Your task to perform on an android device: turn off data saver in the chrome app Image 0: 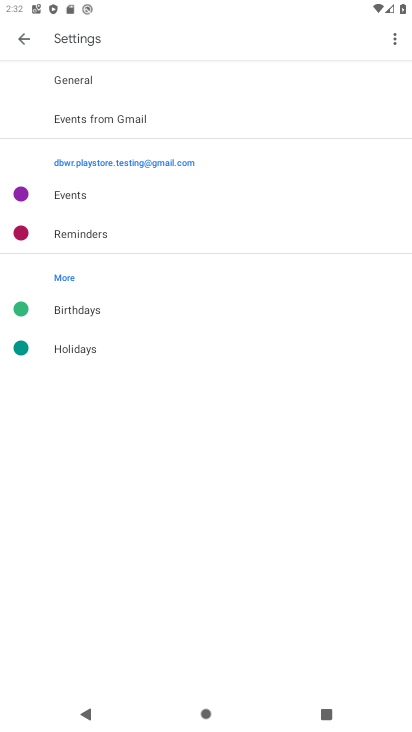
Step 0: press home button
Your task to perform on an android device: turn off data saver in the chrome app Image 1: 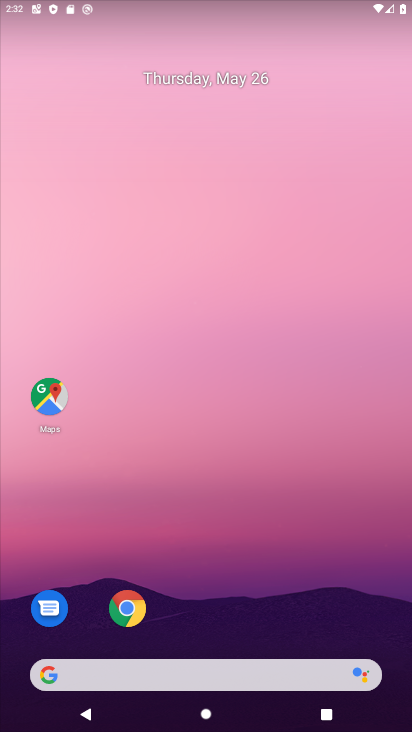
Step 1: drag from (272, 490) to (337, 27)
Your task to perform on an android device: turn off data saver in the chrome app Image 2: 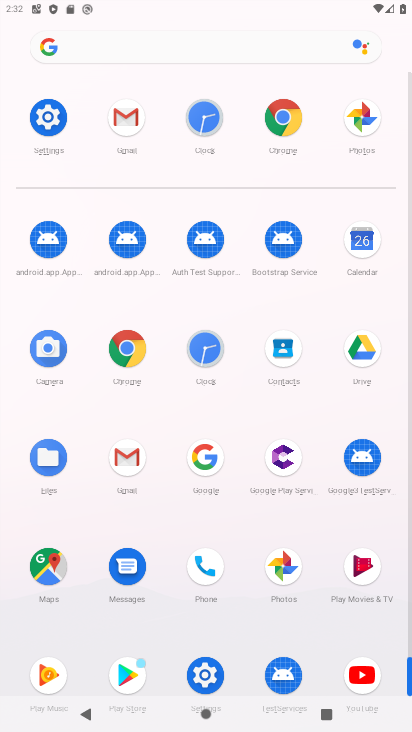
Step 2: click (291, 131)
Your task to perform on an android device: turn off data saver in the chrome app Image 3: 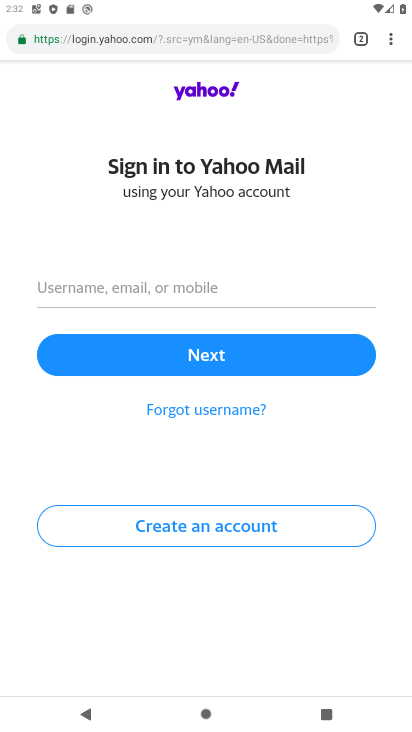
Step 3: drag from (388, 44) to (246, 435)
Your task to perform on an android device: turn off data saver in the chrome app Image 4: 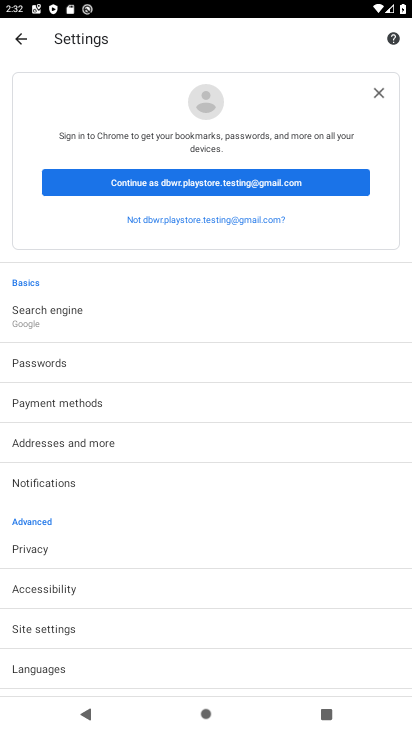
Step 4: drag from (126, 666) to (153, 277)
Your task to perform on an android device: turn off data saver in the chrome app Image 5: 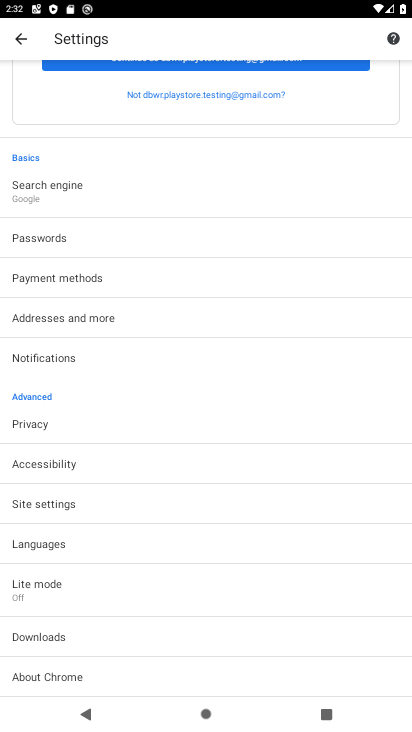
Step 5: click (54, 588)
Your task to perform on an android device: turn off data saver in the chrome app Image 6: 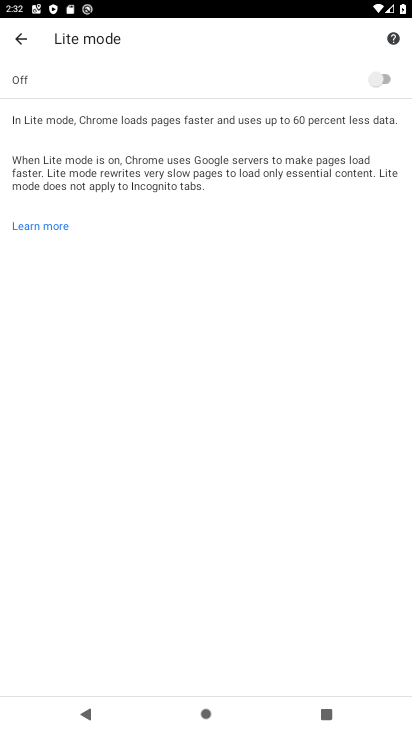
Step 6: task complete